Your task to perform on an android device: Open sound settings Image 0: 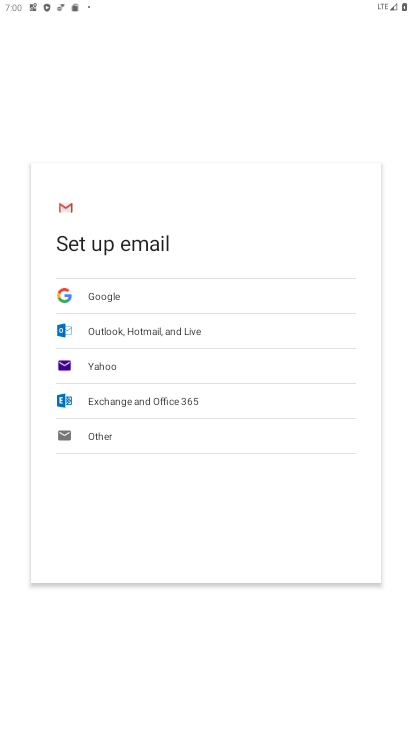
Step 0: press home button
Your task to perform on an android device: Open sound settings Image 1: 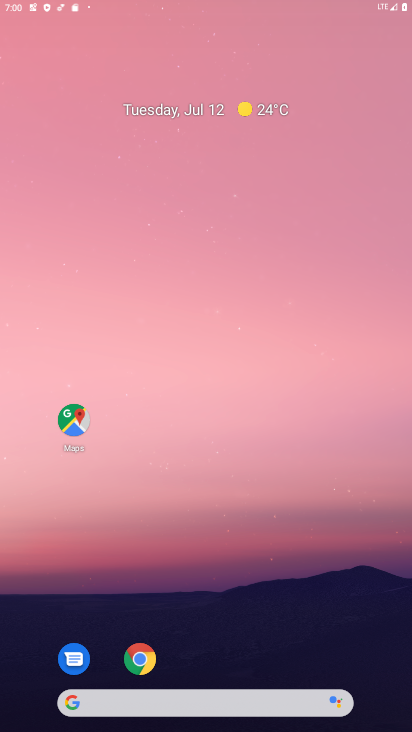
Step 1: drag from (361, 662) to (175, 43)
Your task to perform on an android device: Open sound settings Image 2: 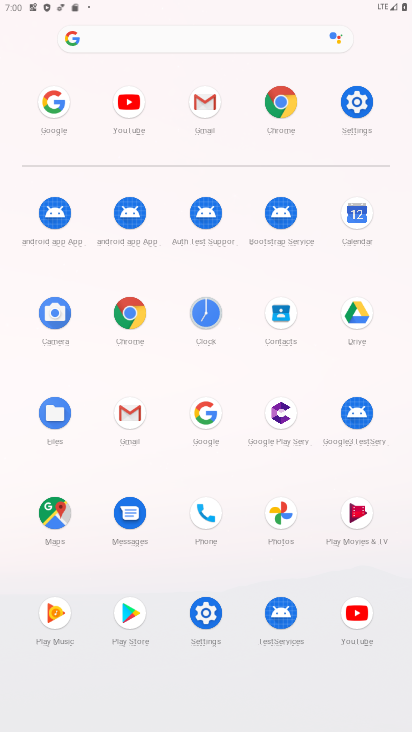
Step 2: click (360, 100)
Your task to perform on an android device: Open sound settings Image 3: 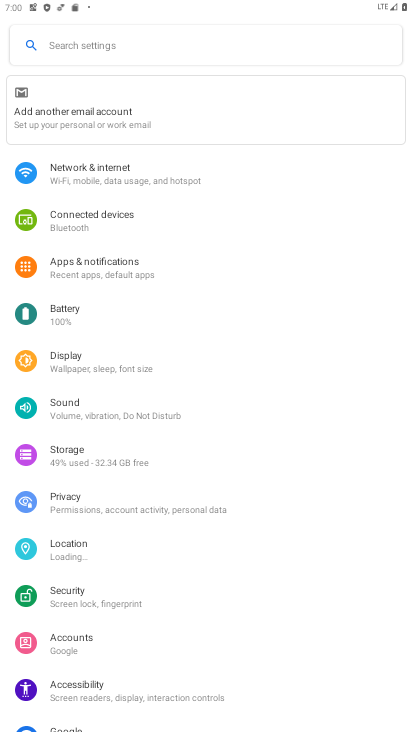
Step 3: click (54, 406)
Your task to perform on an android device: Open sound settings Image 4: 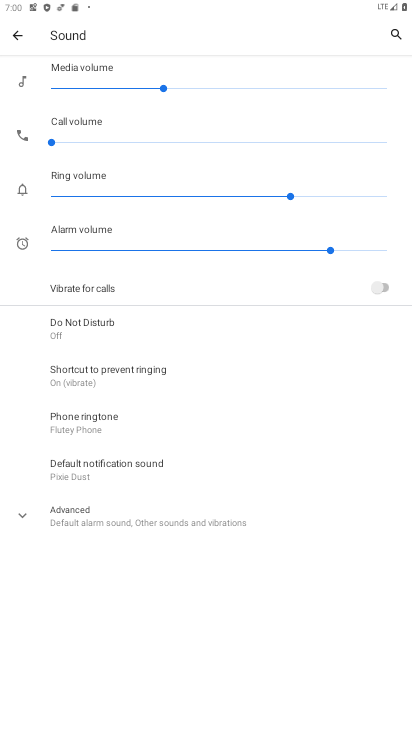
Step 4: task complete